Your task to perform on an android device: open a new tab in the chrome app Image 0: 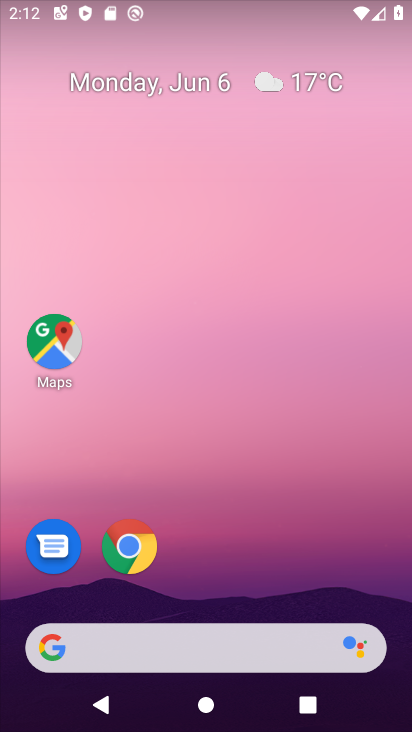
Step 0: click (147, 553)
Your task to perform on an android device: open a new tab in the chrome app Image 1: 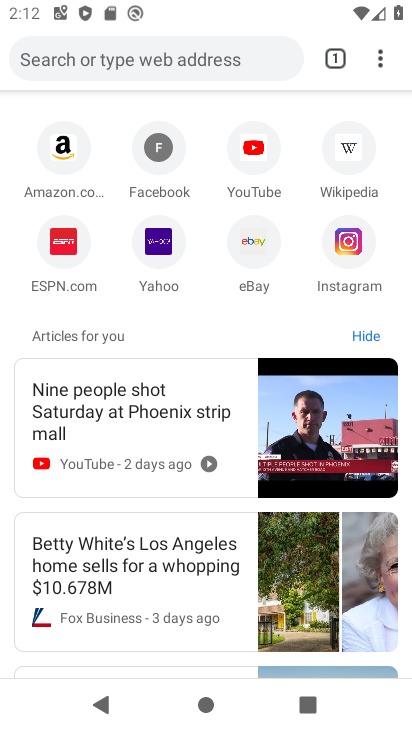
Step 1: click (336, 65)
Your task to perform on an android device: open a new tab in the chrome app Image 2: 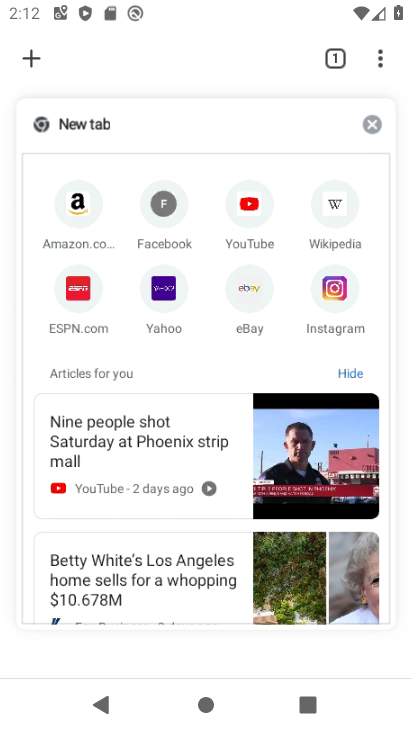
Step 2: click (31, 67)
Your task to perform on an android device: open a new tab in the chrome app Image 3: 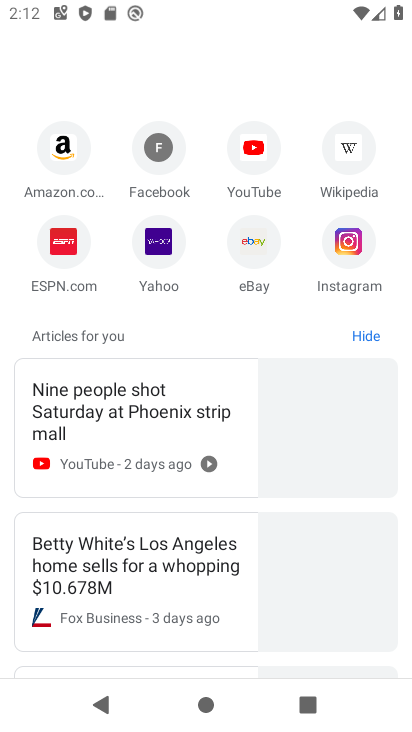
Step 3: task complete